Your task to perform on an android device: What's the weather going to be tomorrow? Image 0: 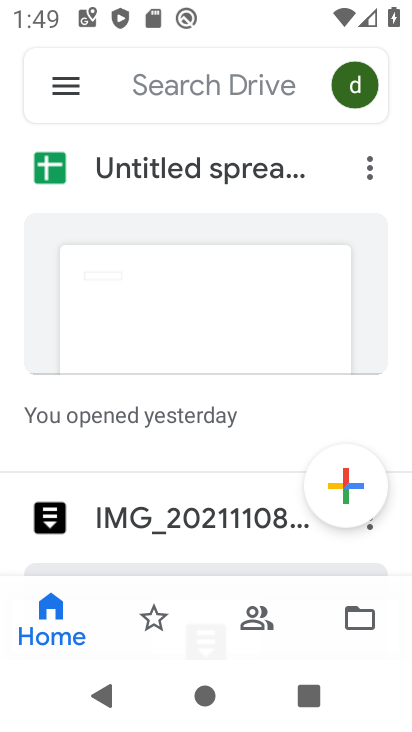
Step 0: press back button
Your task to perform on an android device: What's the weather going to be tomorrow? Image 1: 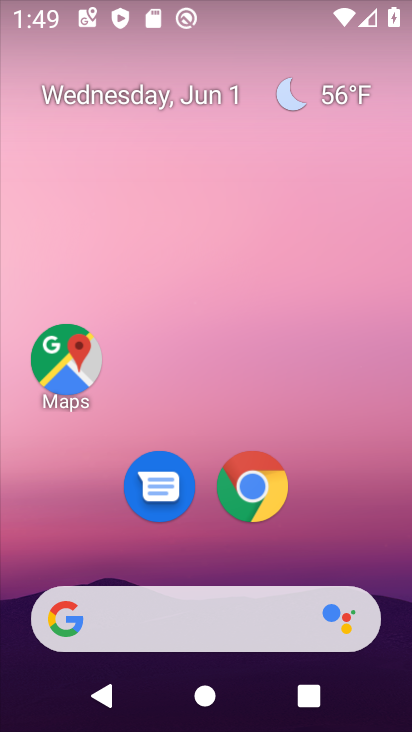
Step 1: click (326, 93)
Your task to perform on an android device: What's the weather going to be tomorrow? Image 2: 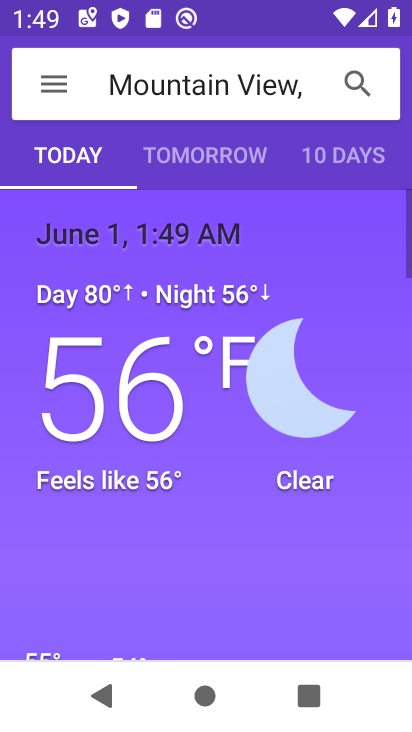
Step 2: click (190, 150)
Your task to perform on an android device: What's the weather going to be tomorrow? Image 3: 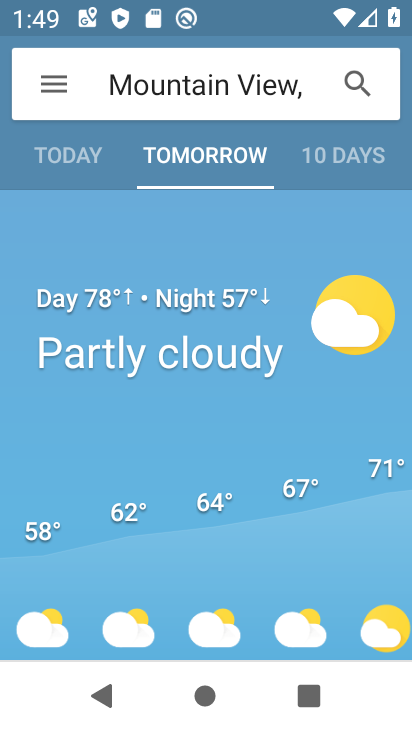
Step 3: task complete